Your task to perform on an android device: check google app version Image 0: 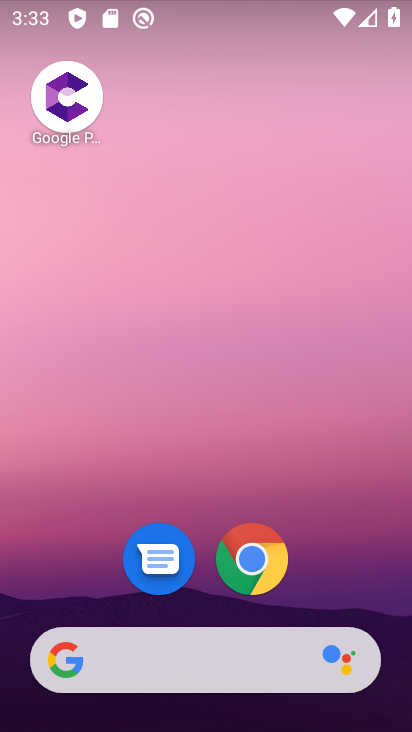
Step 0: drag from (202, 627) to (199, 235)
Your task to perform on an android device: check google app version Image 1: 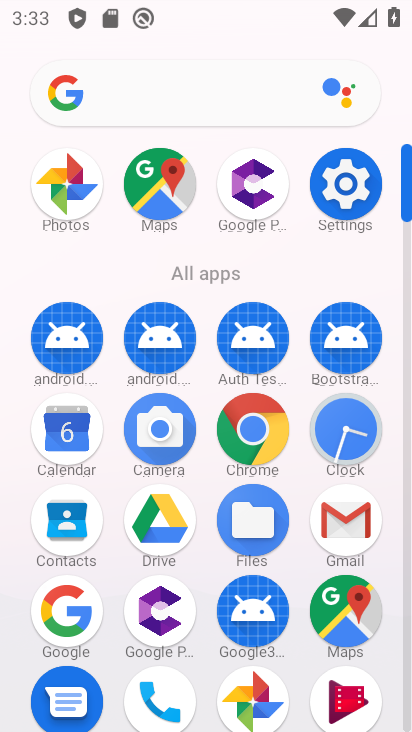
Step 1: click (74, 623)
Your task to perform on an android device: check google app version Image 2: 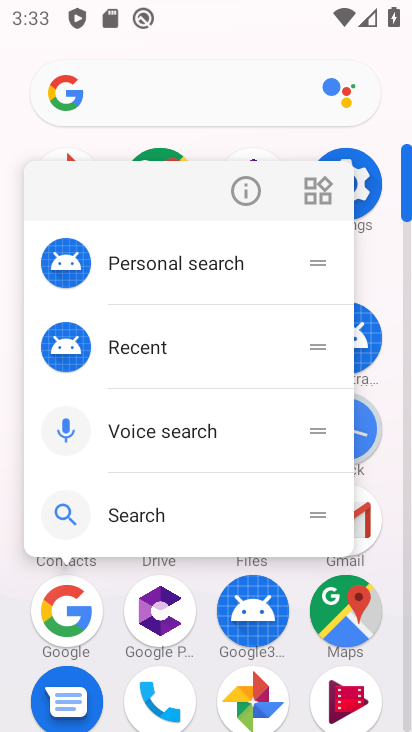
Step 2: click (257, 189)
Your task to perform on an android device: check google app version Image 3: 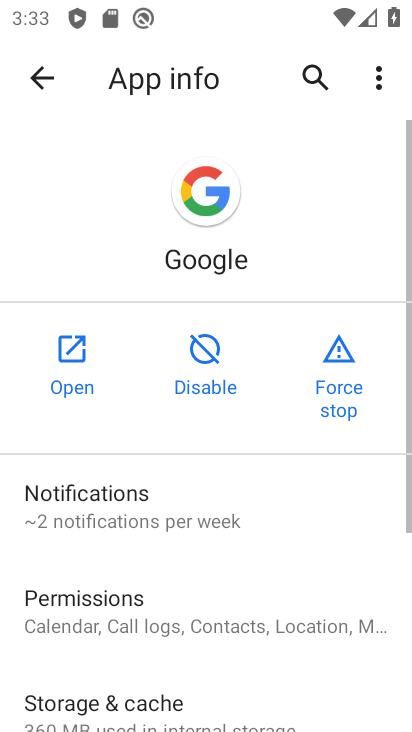
Step 3: drag from (142, 714) to (184, 422)
Your task to perform on an android device: check google app version Image 4: 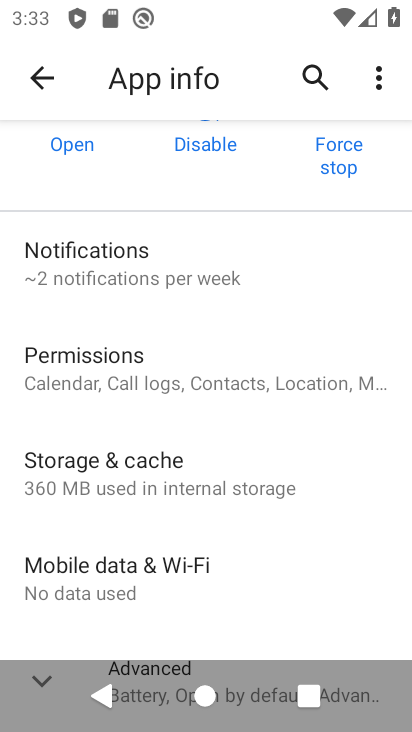
Step 4: drag from (174, 637) to (192, 432)
Your task to perform on an android device: check google app version Image 5: 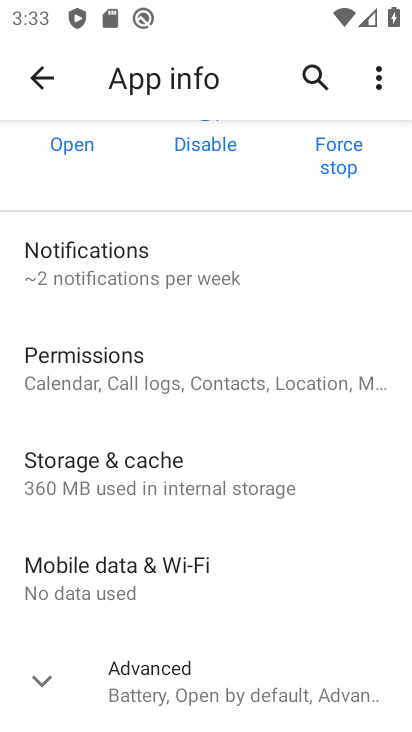
Step 5: click (169, 673)
Your task to perform on an android device: check google app version Image 6: 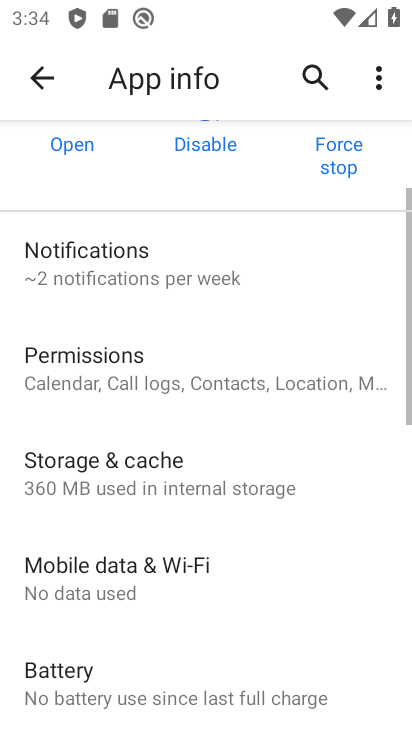
Step 6: task complete